Your task to perform on an android device: Go to Maps Image 0: 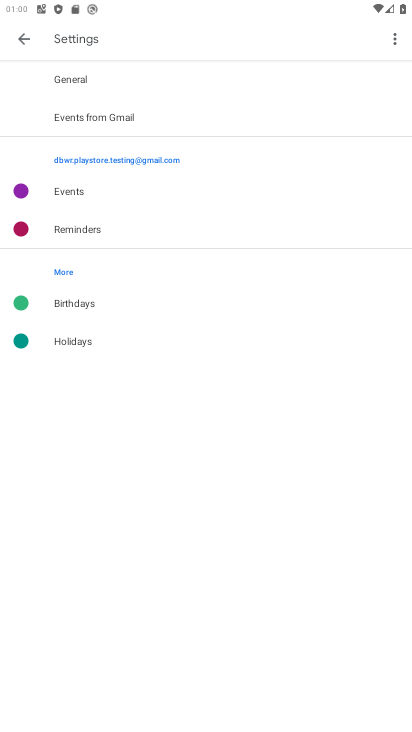
Step 0: press home button
Your task to perform on an android device: Go to Maps Image 1: 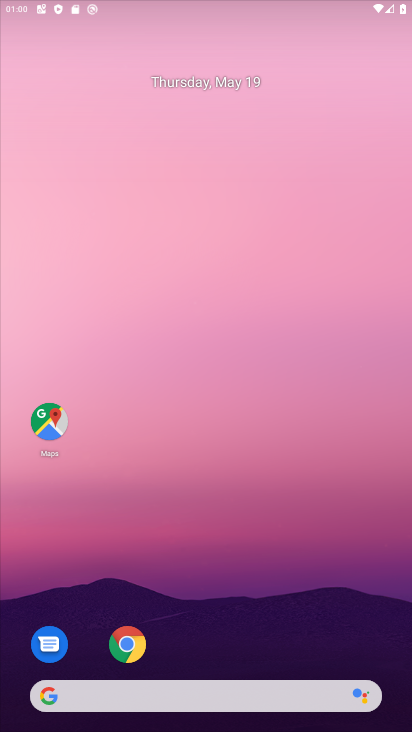
Step 1: drag from (314, 646) to (303, 107)
Your task to perform on an android device: Go to Maps Image 2: 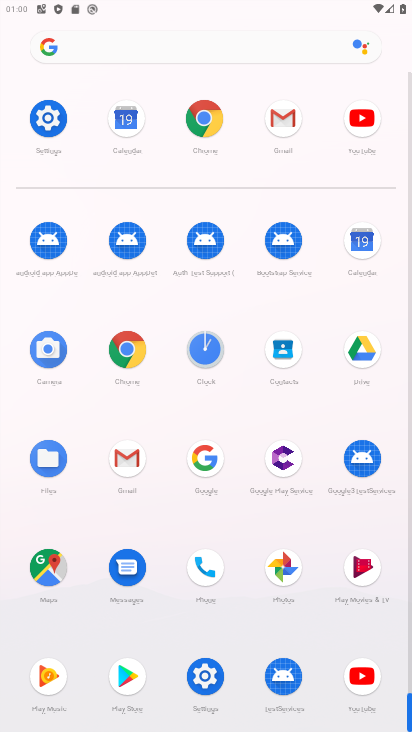
Step 2: click (48, 567)
Your task to perform on an android device: Go to Maps Image 3: 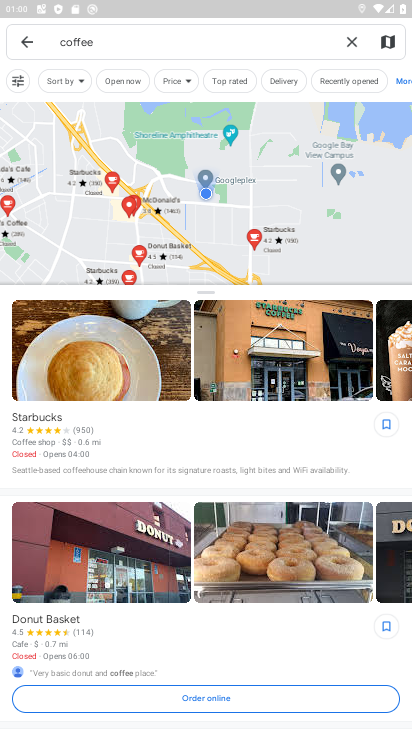
Step 3: task complete